Your task to perform on an android device: turn smart compose on in the gmail app Image 0: 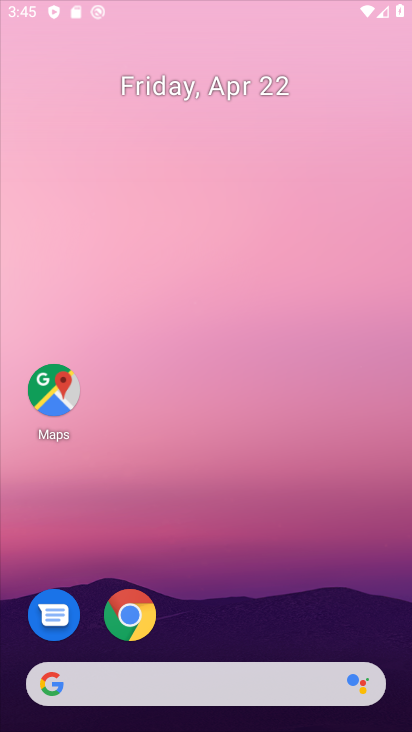
Step 0: click (140, 611)
Your task to perform on an android device: turn smart compose on in the gmail app Image 1: 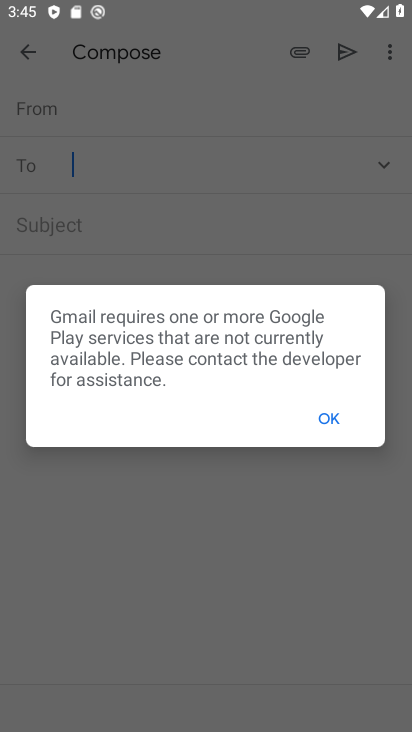
Step 1: press home button
Your task to perform on an android device: turn smart compose on in the gmail app Image 2: 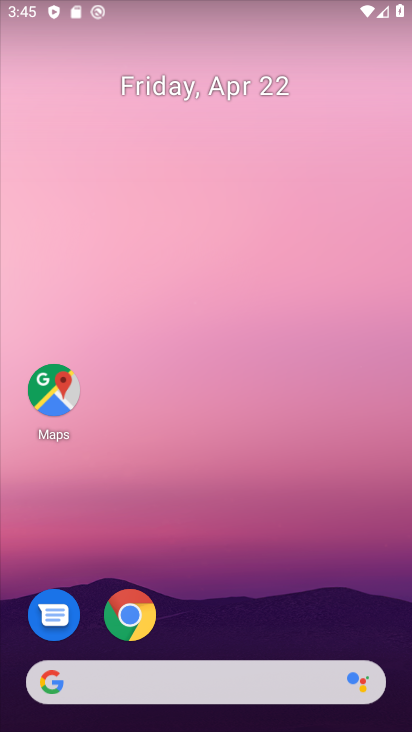
Step 2: drag from (299, 544) to (316, 201)
Your task to perform on an android device: turn smart compose on in the gmail app Image 3: 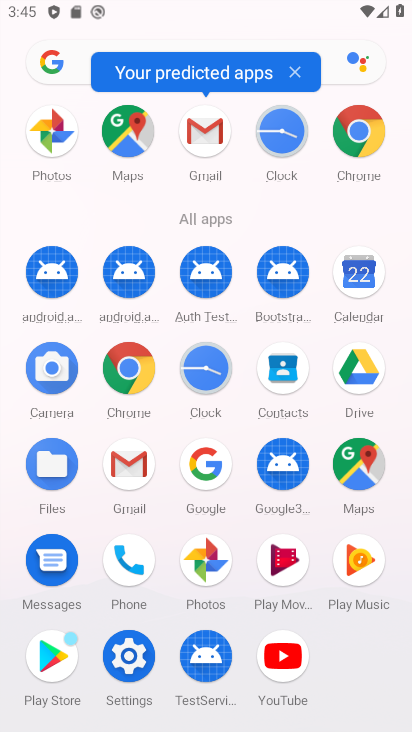
Step 3: click (123, 465)
Your task to perform on an android device: turn smart compose on in the gmail app Image 4: 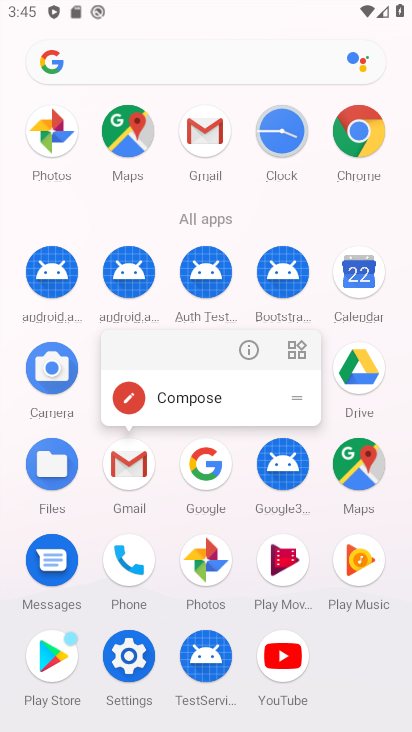
Step 4: click (134, 471)
Your task to perform on an android device: turn smart compose on in the gmail app Image 5: 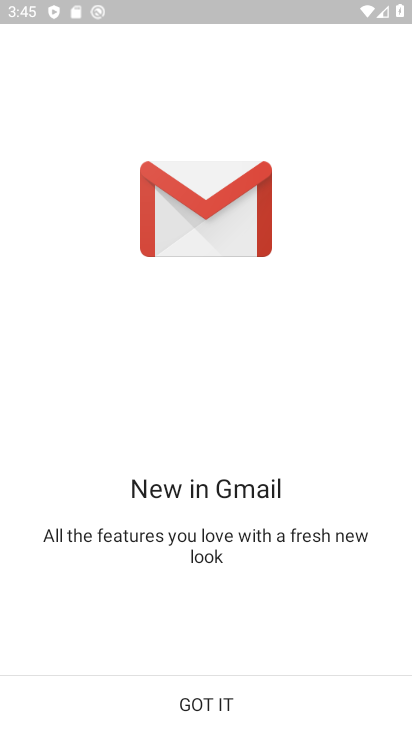
Step 5: click (182, 705)
Your task to perform on an android device: turn smart compose on in the gmail app Image 6: 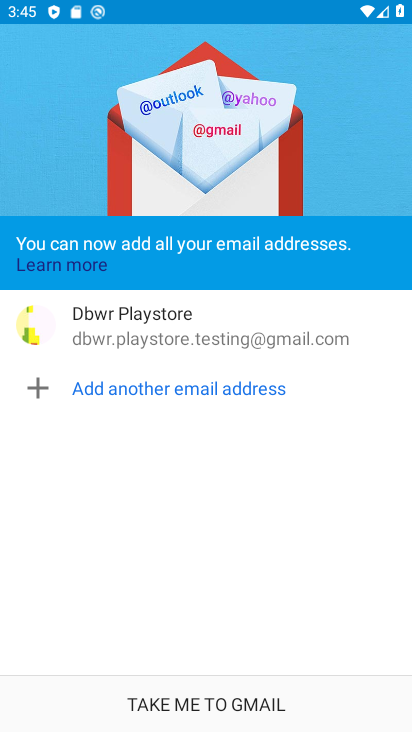
Step 6: click (153, 705)
Your task to perform on an android device: turn smart compose on in the gmail app Image 7: 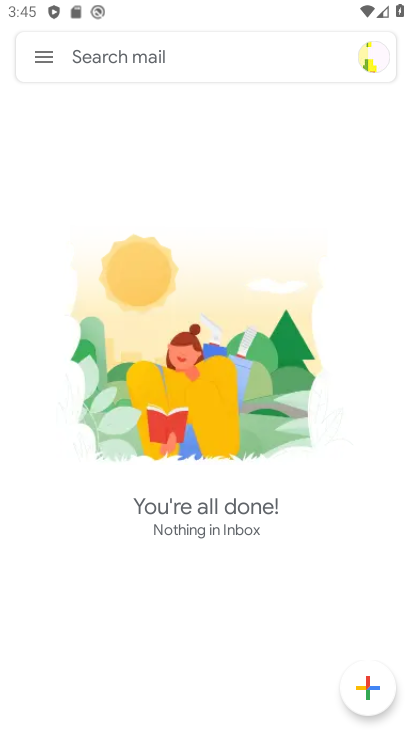
Step 7: click (36, 56)
Your task to perform on an android device: turn smart compose on in the gmail app Image 8: 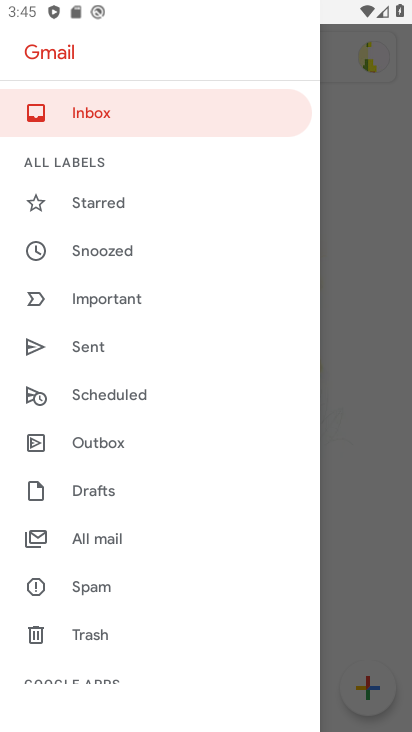
Step 8: drag from (104, 633) to (119, 253)
Your task to perform on an android device: turn smart compose on in the gmail app Image 9: 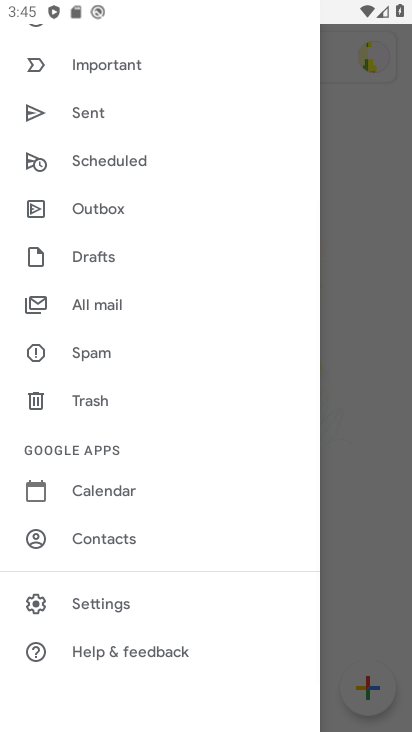
Step 9: click (88, 606)
Your task to perform on an android device: turn smart compose on in the gmail app Image 10: 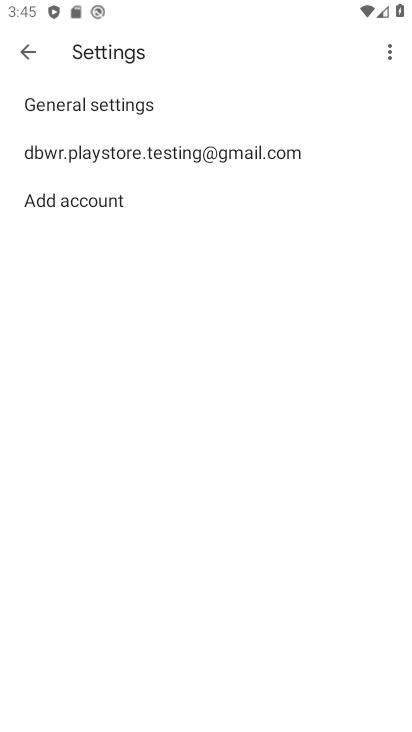
Step 10: click (126, 151)
Your task to perform on an android device: turn smart compose on in the gmail app Image 11: 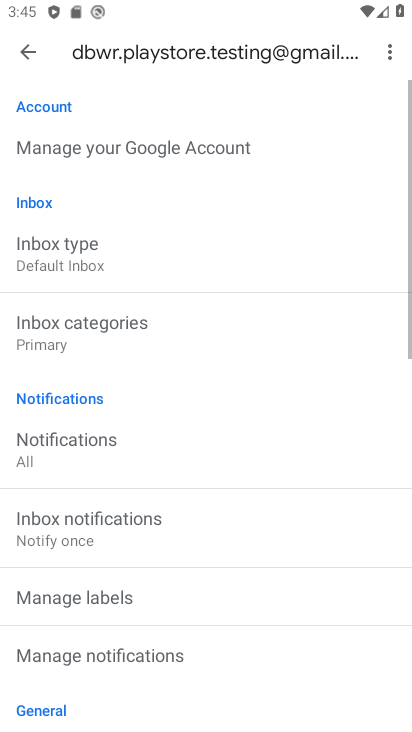
Step 11: task complete